Your task to perform on an android device: open a new tab in the chrome app Image 0: 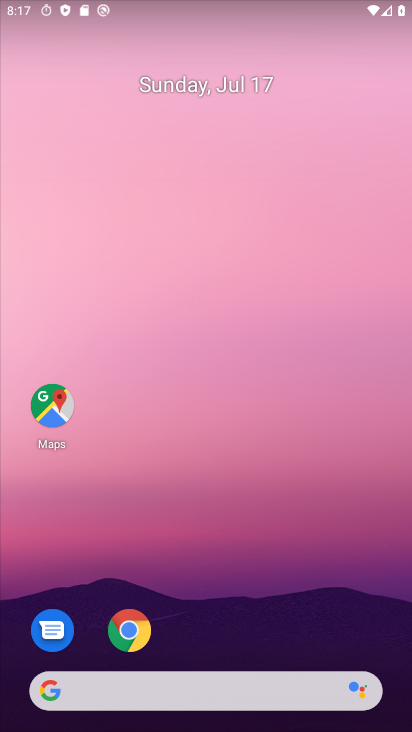
Step 0: click (138, 636)
Your task to perform on an android device: open a new tab in the chrome app Image 1: 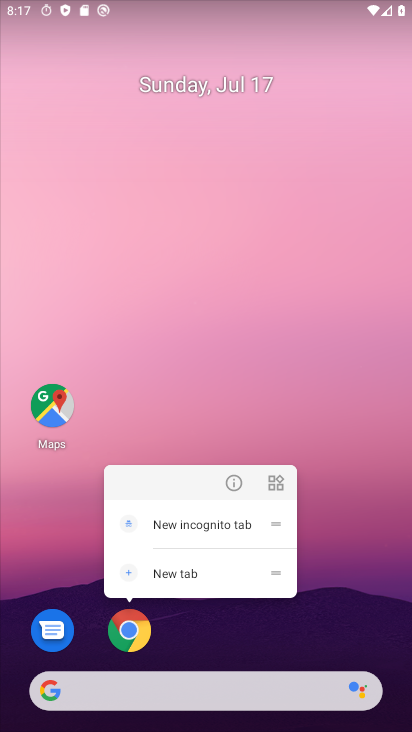
Step 1: click (138, 636)
Your task to perform on an android device: open a new tab in the chrome app Image 2: 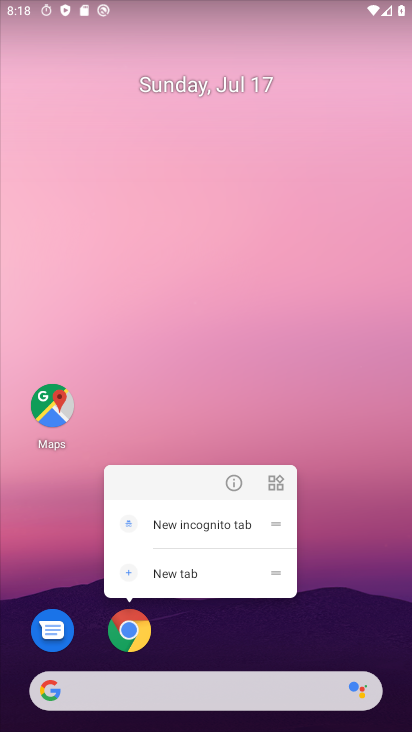
Step 2: click (113, 650)
Your task to perform on an android device: open a new tab in the chrome app Image 3: 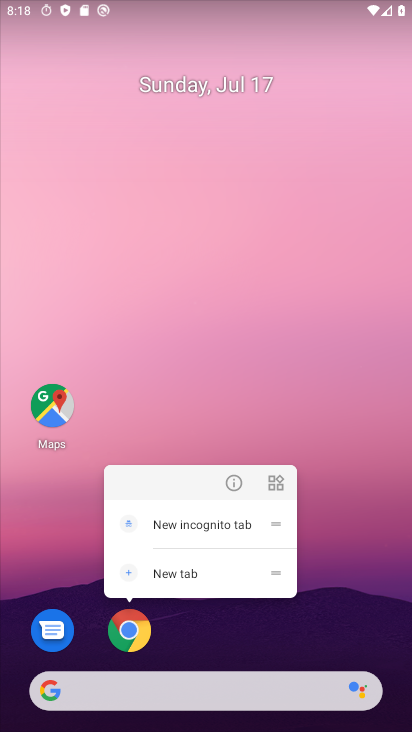
Step 3: click (126, 623)
Your task to perform on an android device: open a new tab in the chrome app Image 4: 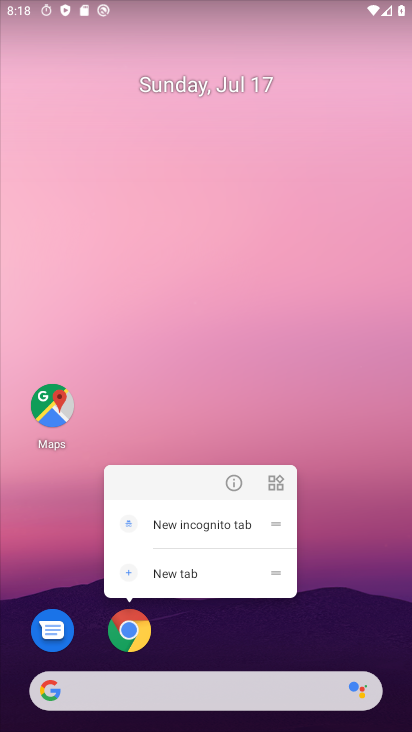
Step 4: click (127, 637)
Your task to perform on an android device: open a new tab in the chrome app Image 5: 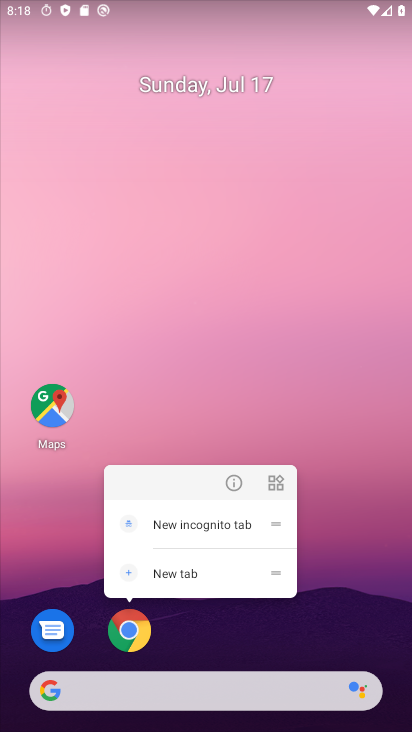
Step 5: click (140, 642)
Your task to perform on an android device: open a new tab in the chrome app Image 6: 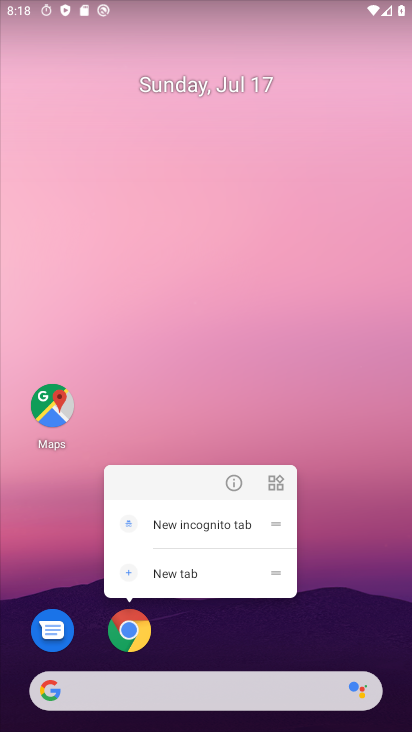
Step 6: click (183, 571)
Your task to perform on an android device: open a new tab in the chrome app Image 7: 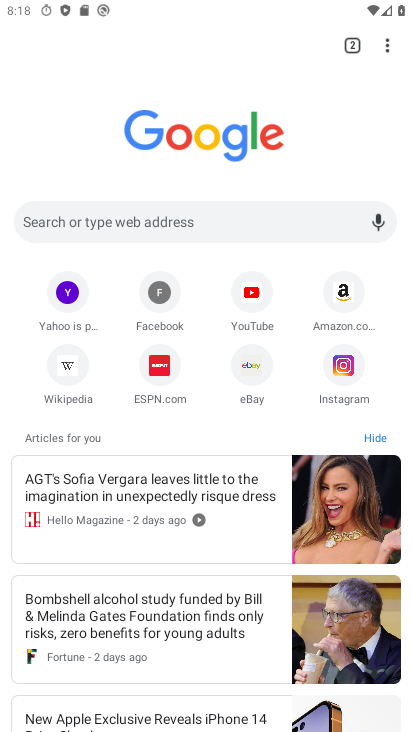
Step 7: task complete